Your task to perform on an android device: open sync settings in chrome Image 0: 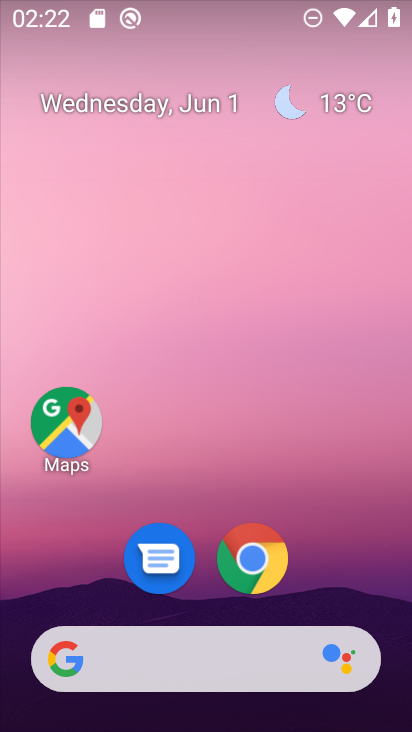
Step 0: click (258, 553)
Your task to perform on an android device: open sync settings in chrome Image 1: 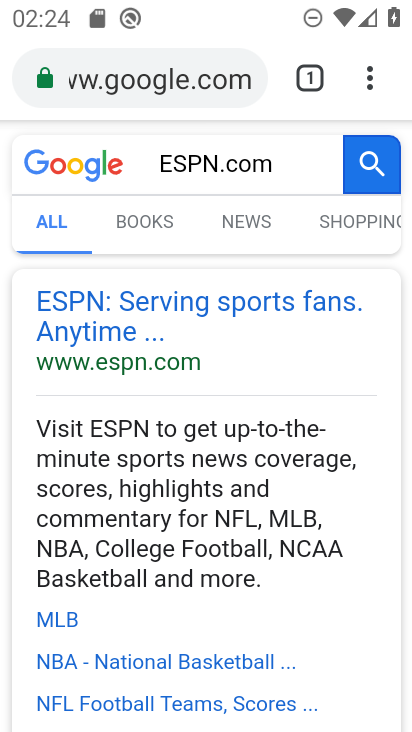
Step 1: click (364, 78)
Your task to perform on an android device: open sync settings in chrome Image 2: 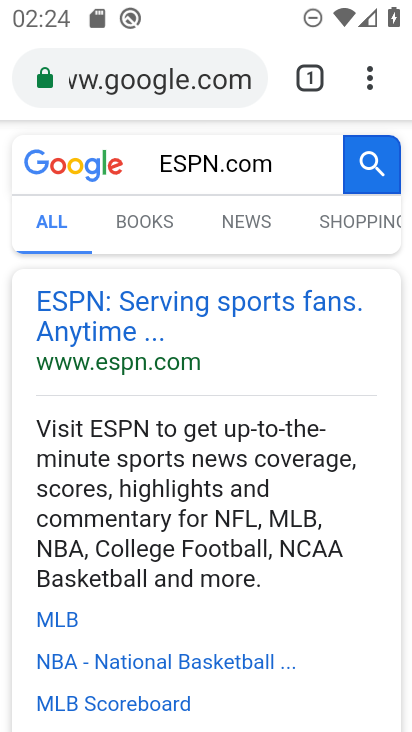
Step 2: click (370, 74)
Your task to perform on an android device: open sync settings in chrome Image 3: 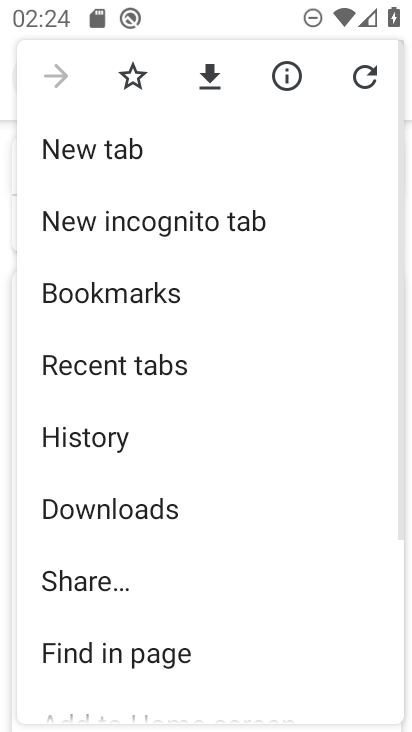
Step 3: drag from (277, 672) to (297, 324)
Your task to perform on an android device: open sync settings in chrome Image 4: 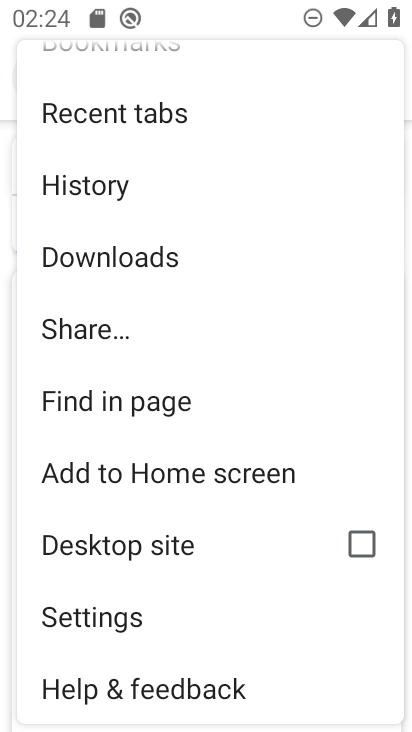
Step 4: click (83, 615)
Your task to perform on an android device: open sync settings in chrome Image 5: 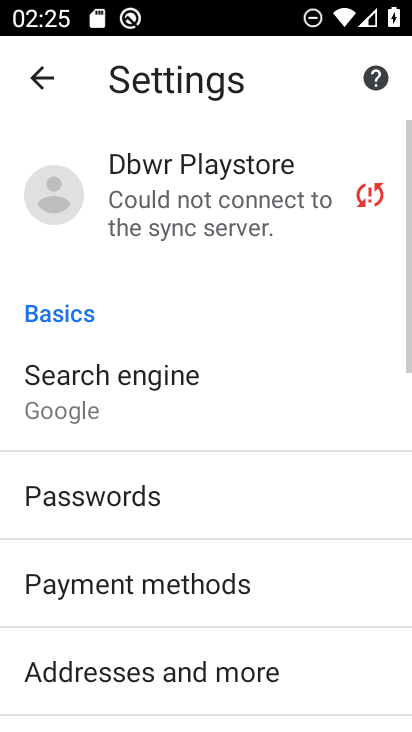
Step 5: drag from (268, 667) to (264, 331)
Your task to perform on an android device: open sync settings in chrome Image 6: 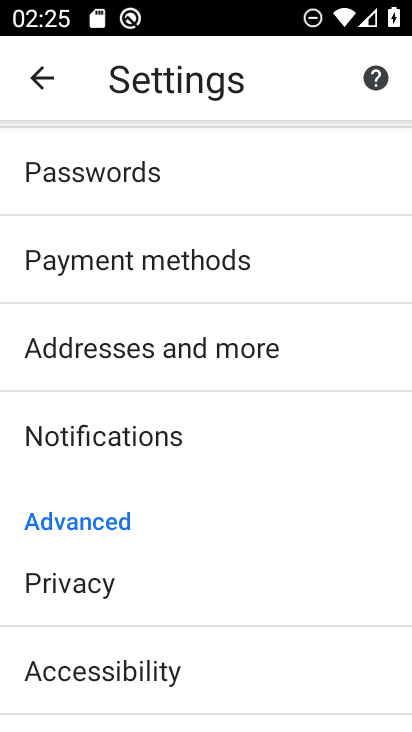
Step 6: click (80, 574)
Your task to perform on an android device: open sync settings in chrome Image 7: 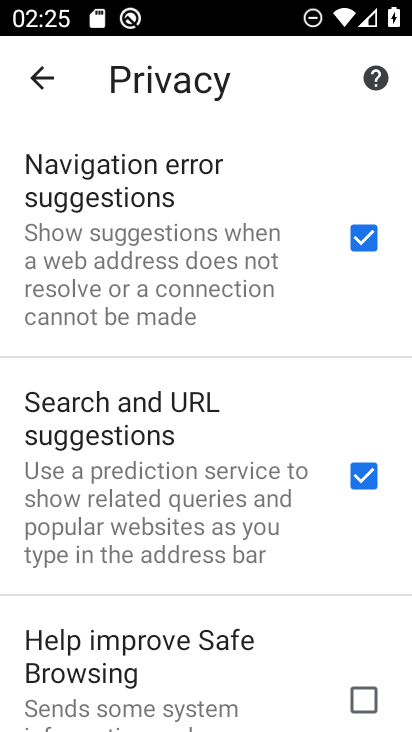
Step 7: click (32, 76)
Your task to perform on an android device: open sync settings in chrome Image 8: 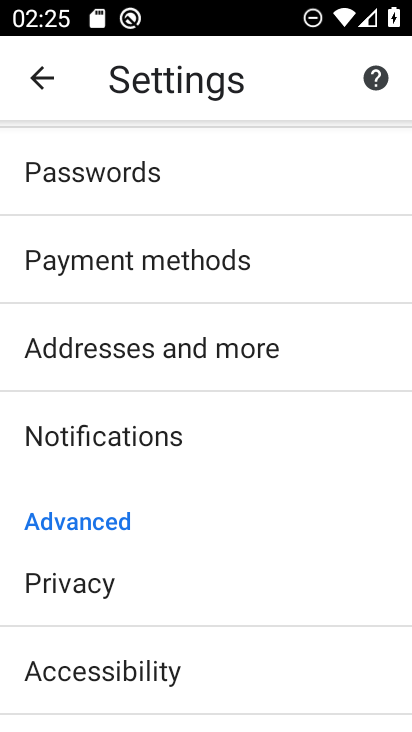
Step 8: drag from (253, 640) to (261, 265)
Your task to perform on an android device: open sync settings in chrome Image 9: 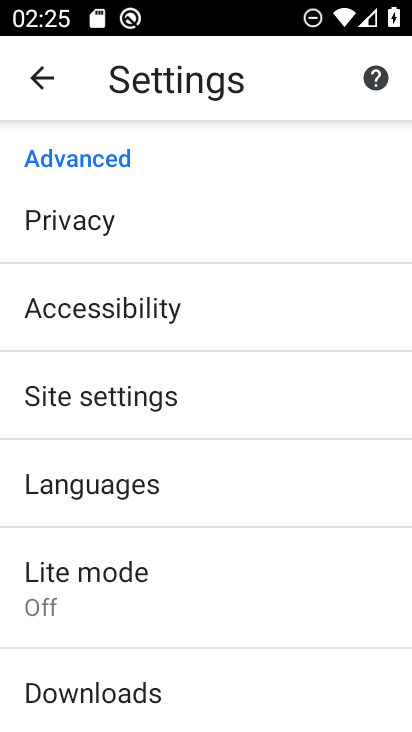
Step 9: click (106, 400)
Your task to perform on an android device: open sync settings in chrome Image 10: 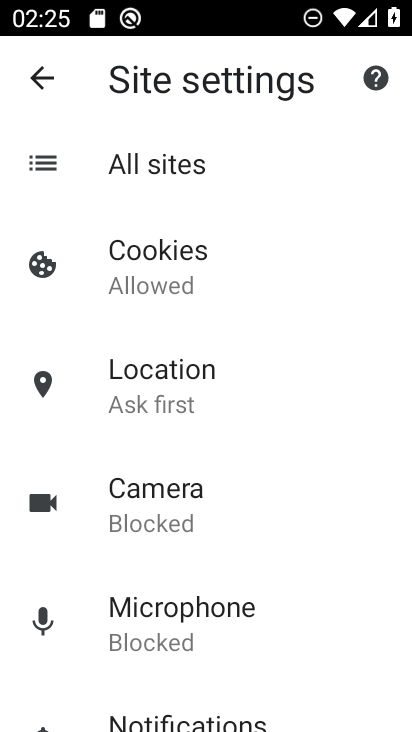
Step 10: drag from (297, 589) to (329, 218)
Your task to perform on an android device: open sync settings in chrome Image 11: 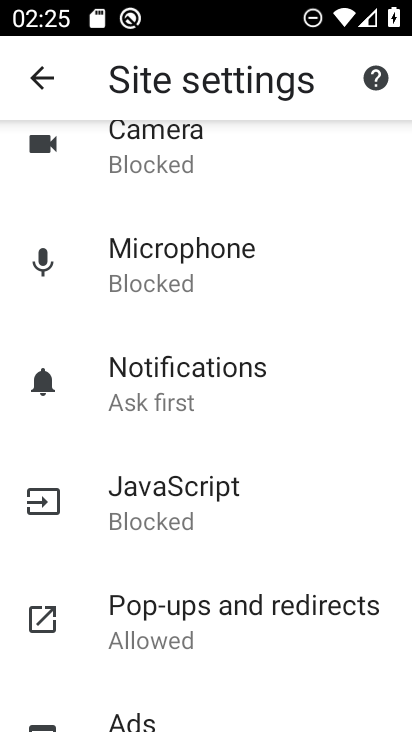
Step 11: drag from (233, 640) to (285, 276)
Your task to perform on an android device: open sync settings in chrome Image 12: 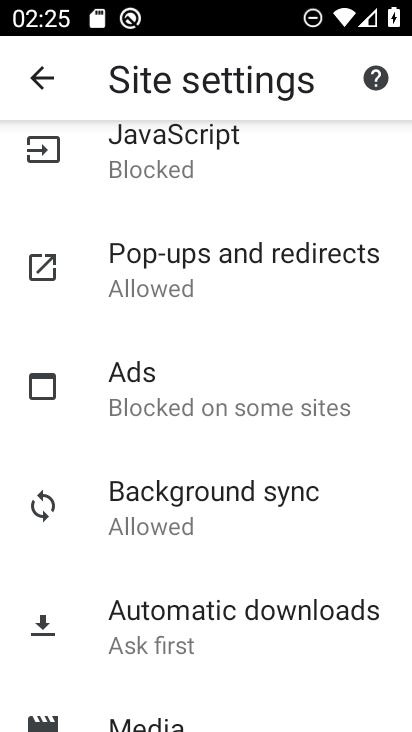
Step 12: click (190, 504)
Your task to perform on an android device: open sync settings in chrome Image 13: 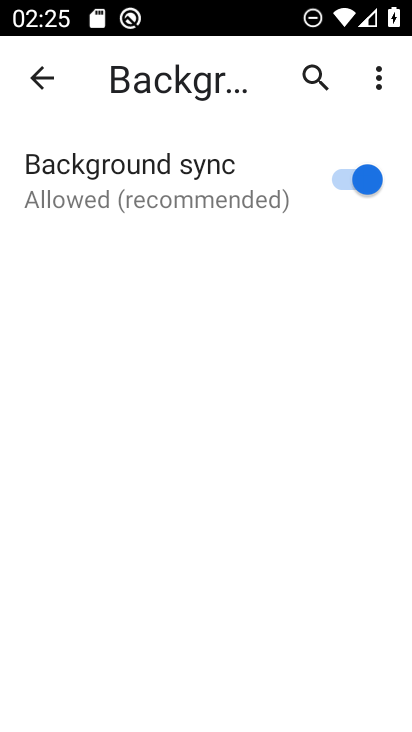
Step 13: task complete